Your task to perform on an android device: open wifi settings Image 0: 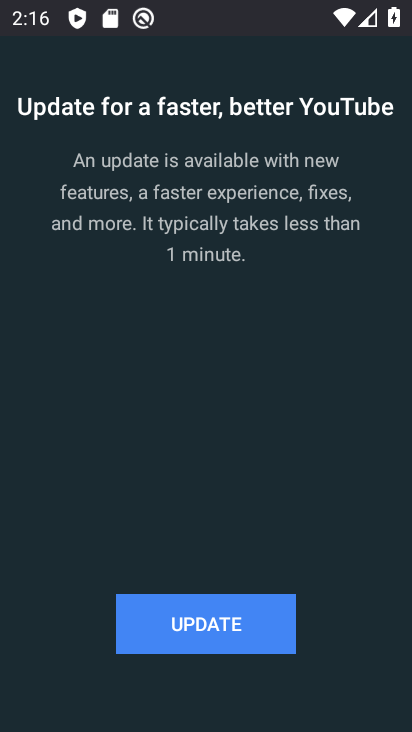
Step 0: press home button
Your task to perform on an android device: open wifi settings Image 1: 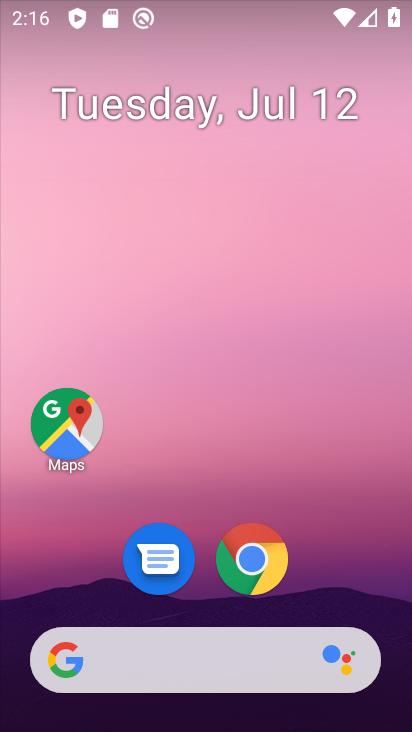
Step 1: drag from (340, 570) to (347, 207)
Your task to perform on an android device: open wifi settings Image 2: 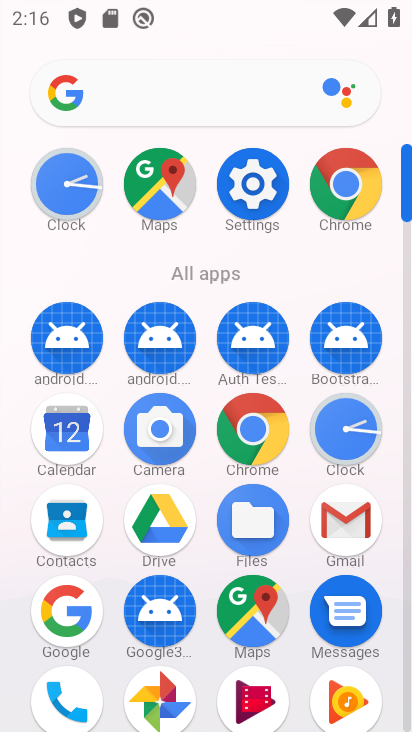
Step 2: click (255, 198)
Your task to perform on an android device: open wifi settings Image 3: 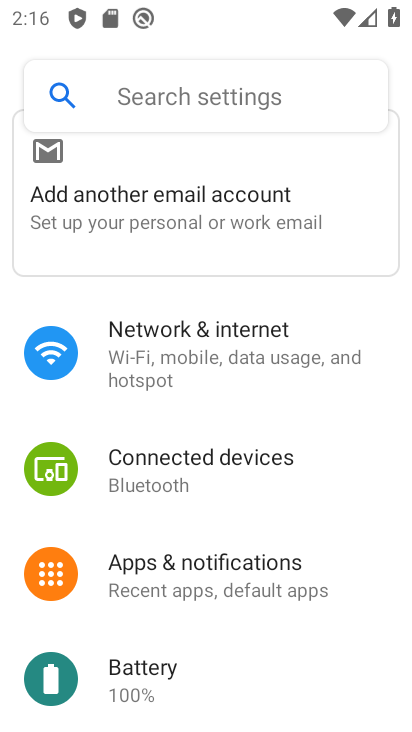
Step 3: click (223, 340)
Your task to perform on an android device: open wifi settings Image 4: 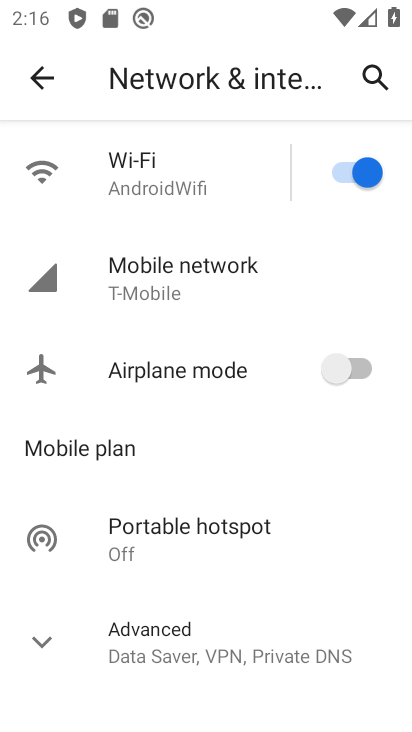
Step 4: click (153, 171)
Your task to perform on an android device: open wifi settings Image 5: 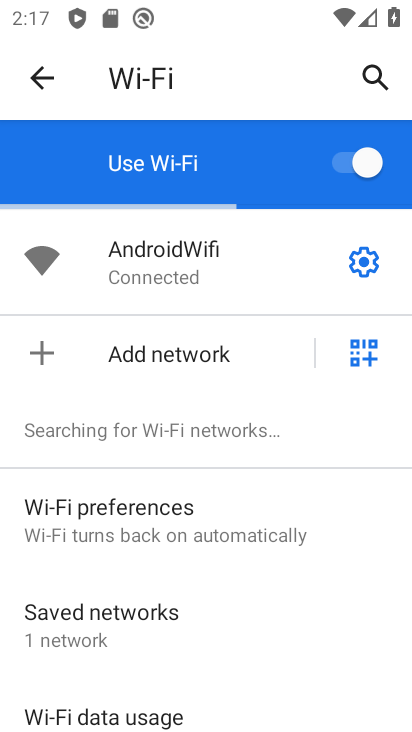
Step 5: task complete